Your task to perform on an android device: Open Maps and search for coffee Image 0: 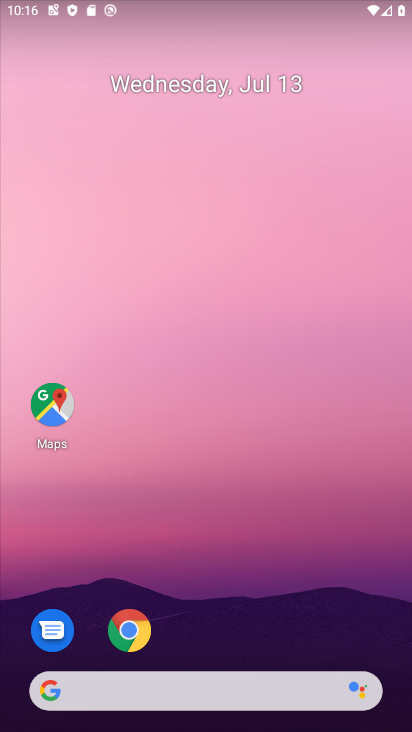
Step 0: drag from (207, 422) to (190, 162)
Your task to perform on an android device: Open Maps and search for coffee Image 1: 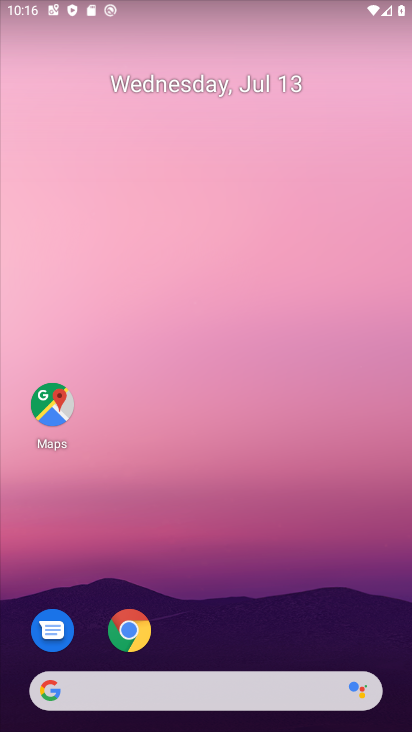
Step 1: drag from (325, 603) to (255, 4)
Your task to perform on an android device: Open Maps and search for coffee Image 2: 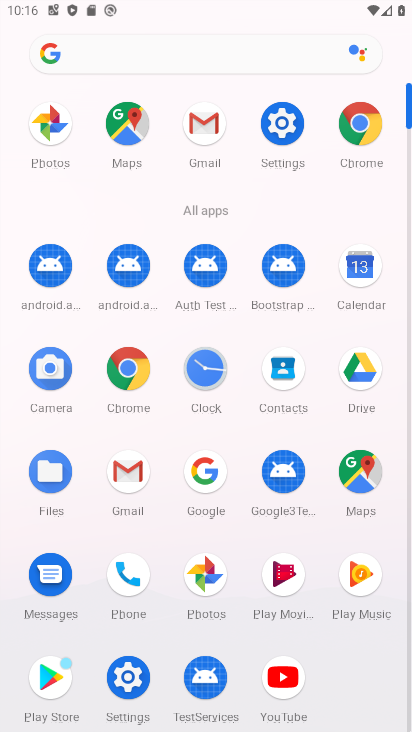
Step 2: click (113, 137)
Your task to perform on an android device: Open Maps and search for coffee Image 3: 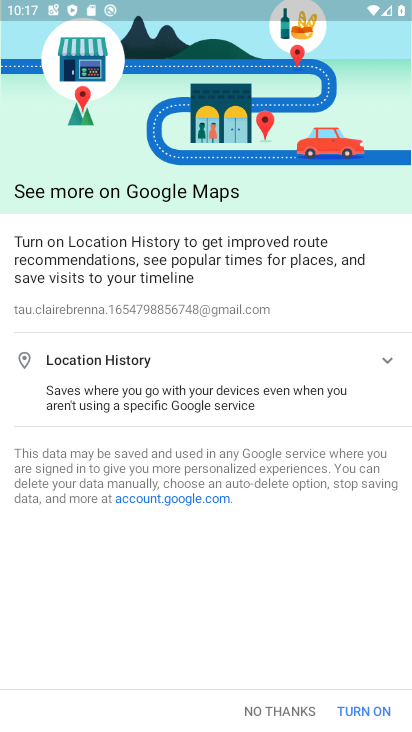
Step 3: press back button
Your task to perform on an android device: Open Maps and search for coffee Image 4: 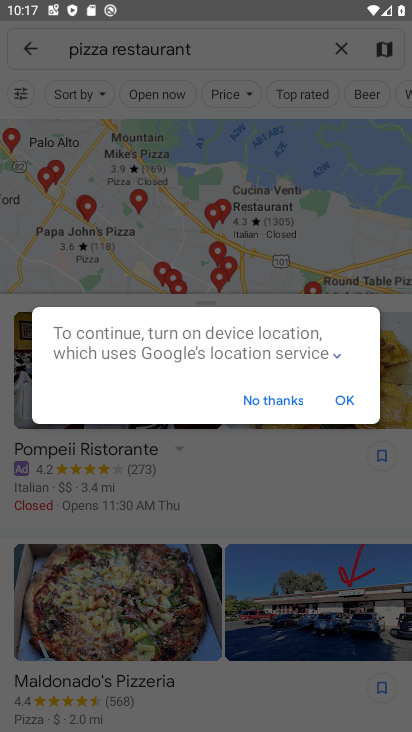
Step 4: click (274, 402)
Your task to perform on an android device: Open Maps and search for coffee Image 5: 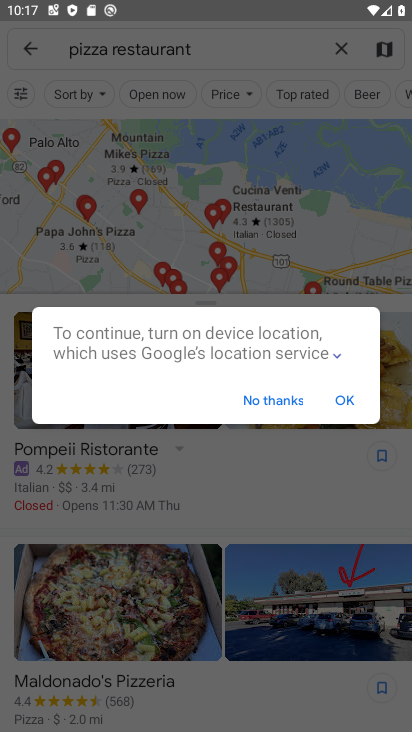
Step 5: click (274, 400)
Your task to perform on an android device: Open Maps and search for coffee Image 6: 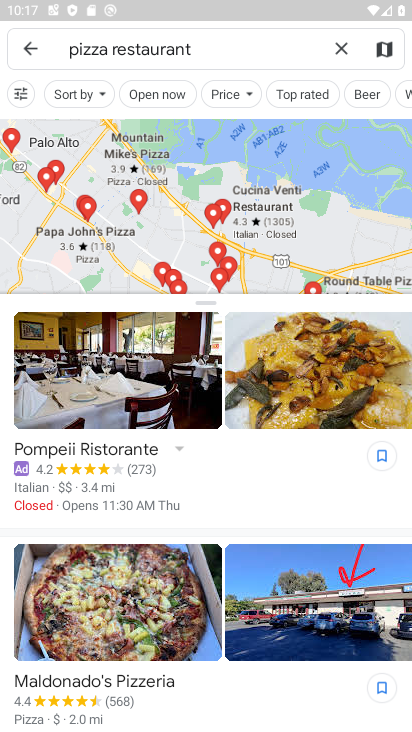
Step 6: click (333, 53)
Your task to perform on an android device: Open Maps and search for coffee Image 7: 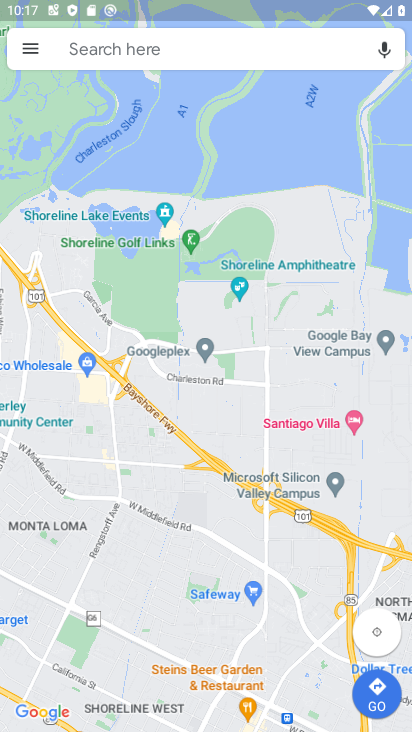
Step 7: click (213, 49)
Your task to perform on an android device: Open Maps and search for coffee Image 8: 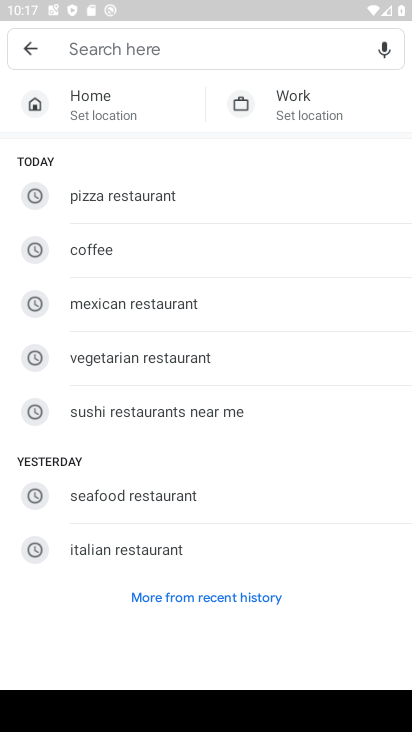
Step 8: click (105, 243)
Your task to perform on an android device: Open Maps and search for coffee Image 9: 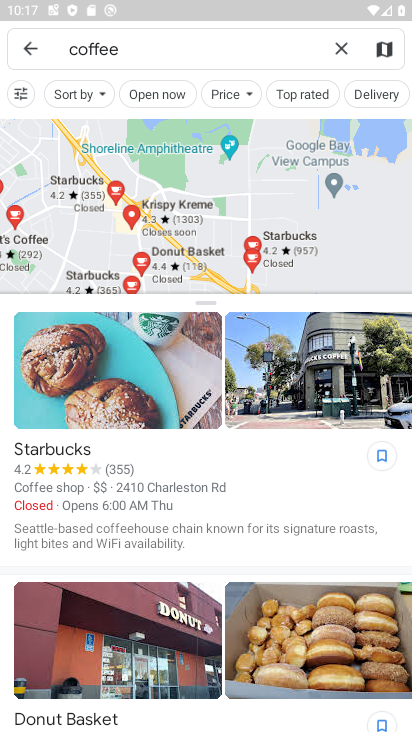
Step 9: task complete